Your task to perform on an android device: show emergency info Image 0: 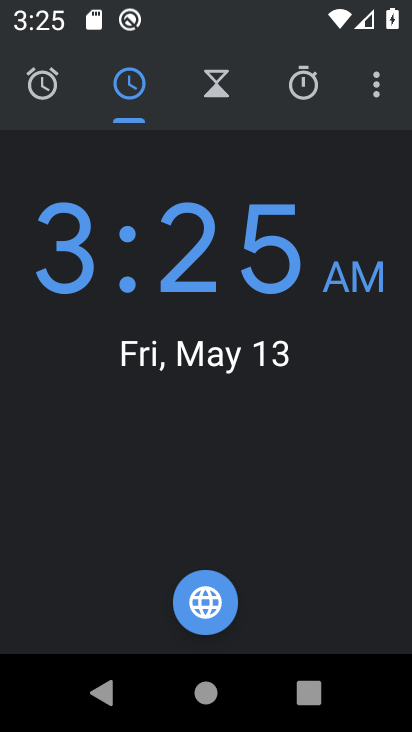
Step 0: press home button
Your task to perform on an android device: show emergency info Image 1: 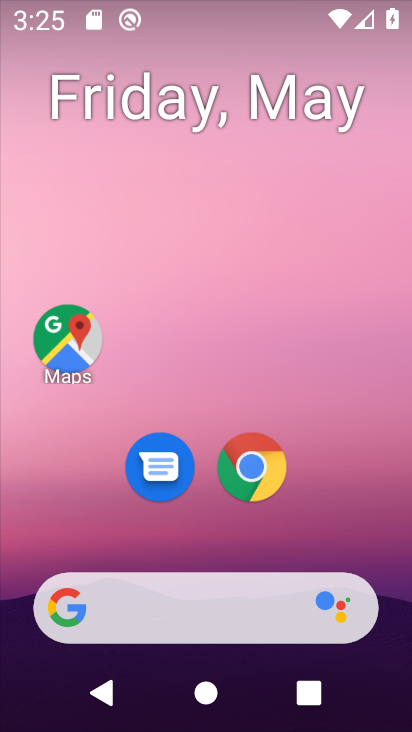
Step 1: drag from (313, 335) to (268, 66)
Your task to perform on an android device: show emergency info Image 2: 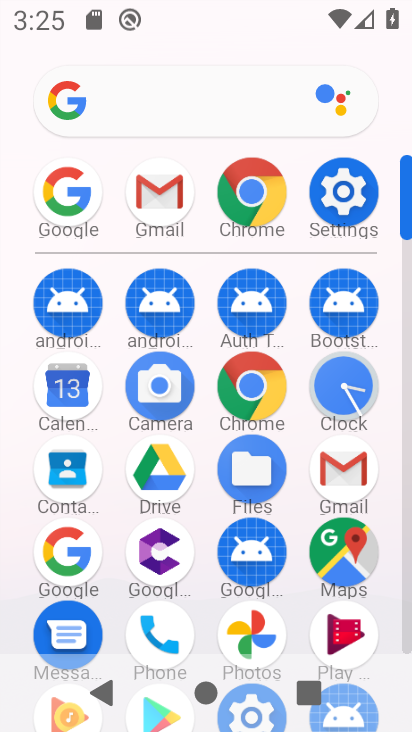
Step 2: click (347, 205)
Your task to perform on an android device: show emergency info Image 3: 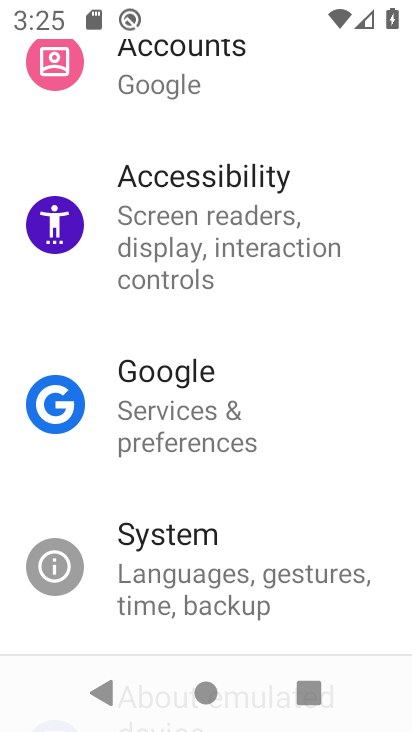
Step 3: drag from (246, 390) to (236, 73)
Your task to perform on an android device: show emergency info Image 4: 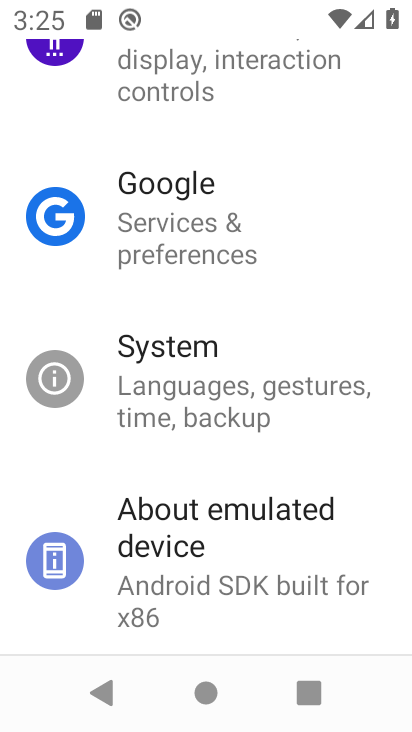
Step 4: drag from (231, 521) to (241, 289)
Your task to perform on an android device: show emergency info Image 5: 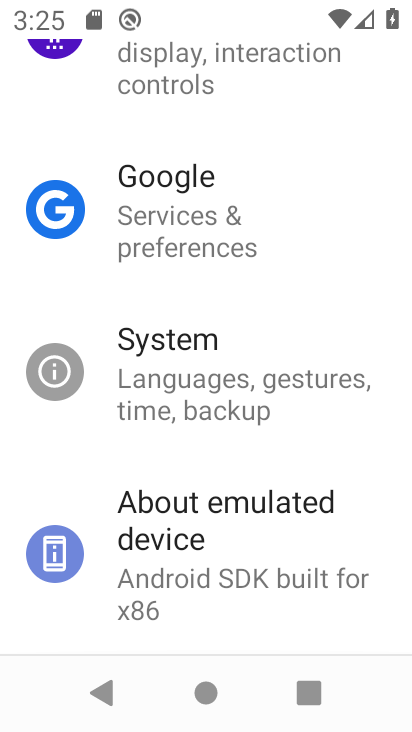
Step 5: click (231, 511)
Your task to perform on an android device: show emergency info Image 6: 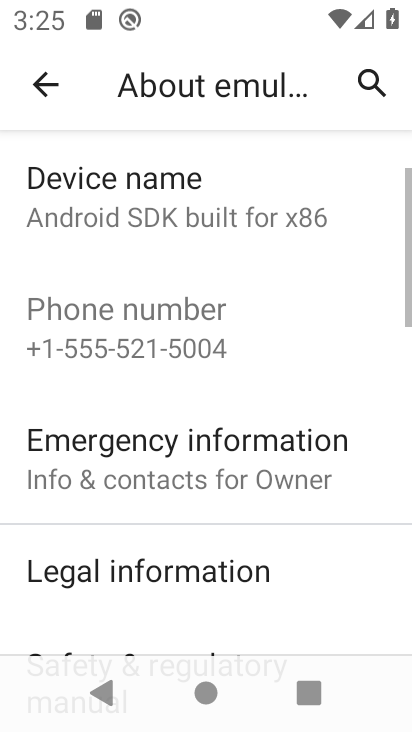
Step 6: click (194, 471)
Your task to perform on an android device: show emergency info Image 7: 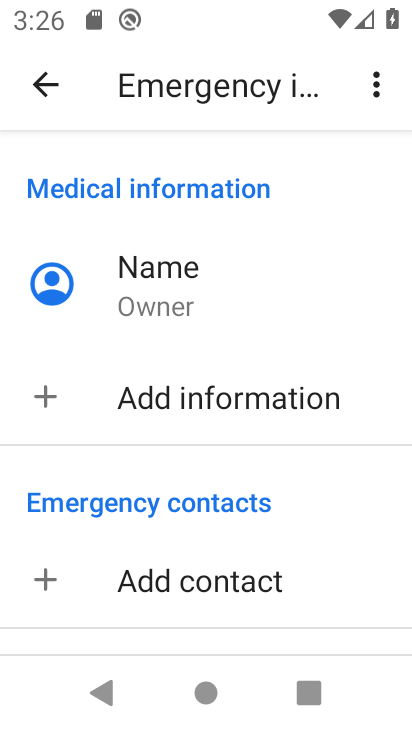
Step 7: task complete